Your task to perform on an android device: Go to ESPN.com Image 0: 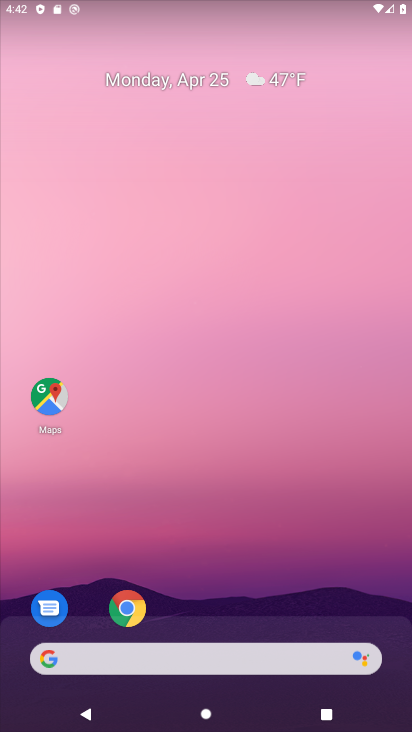
Step 0: click (128, 613)
Your task to perform on an android device: Go to ESPN.com Image 1: 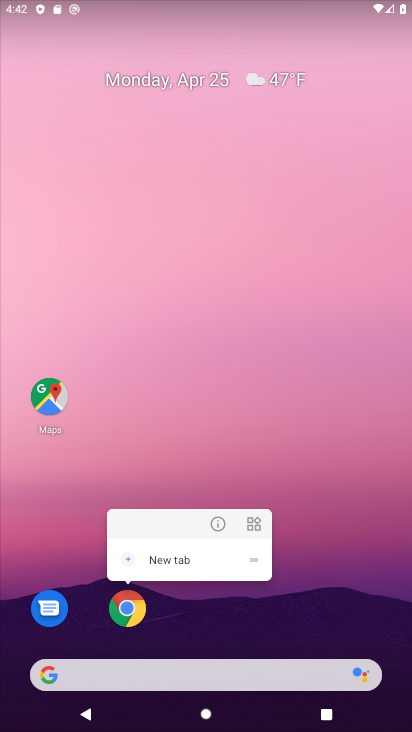
Step 1: click (129, 606)
Your task to perform on an android device: Go to ESPN.com Image 2: 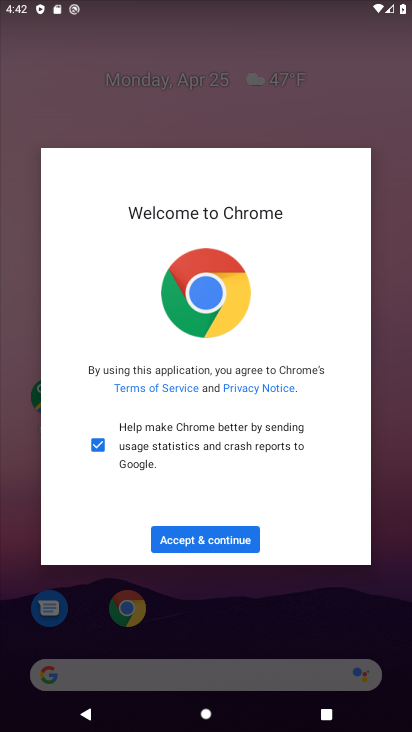
Step 2: click (187, 536)
Your task to perform on an android device: Go to ESPN.com Image 3: 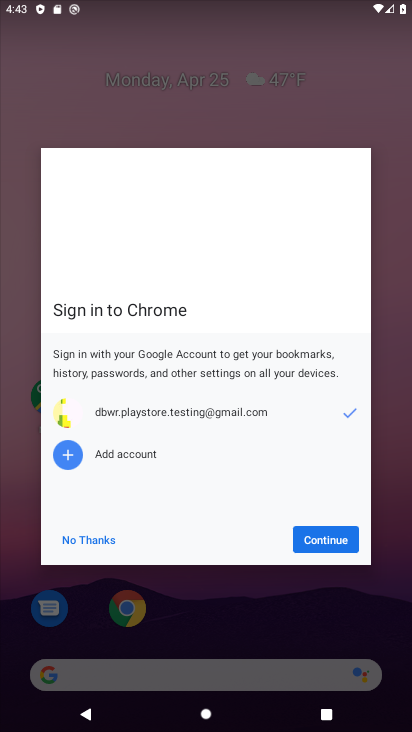
Step 3: click (313, 537)
Your task to perform on an android device: Go to ESPN.com Image 4: 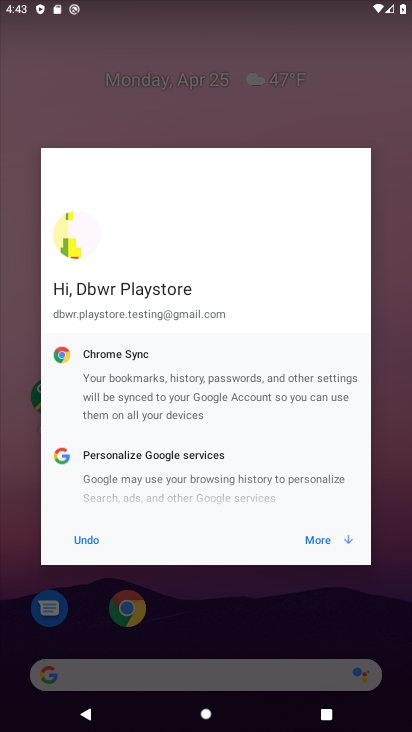
Step 4: click (319, 544)
Your task to perform on an android device: Go to ESPN.com Image 5: 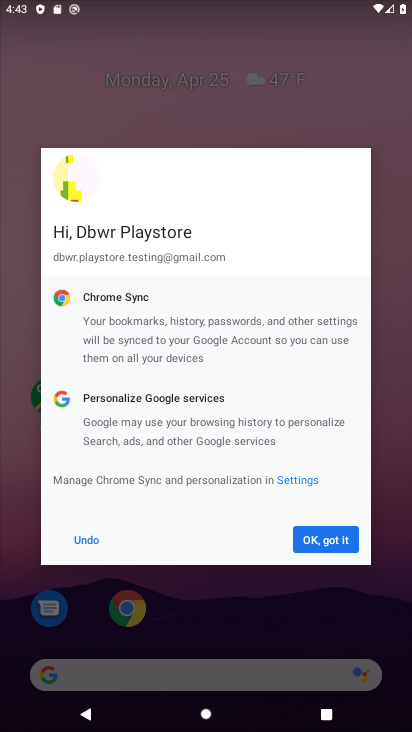
Step 5: click (326, 539)
Your task to perform on an android device: Go to ESPN.com Image 6: 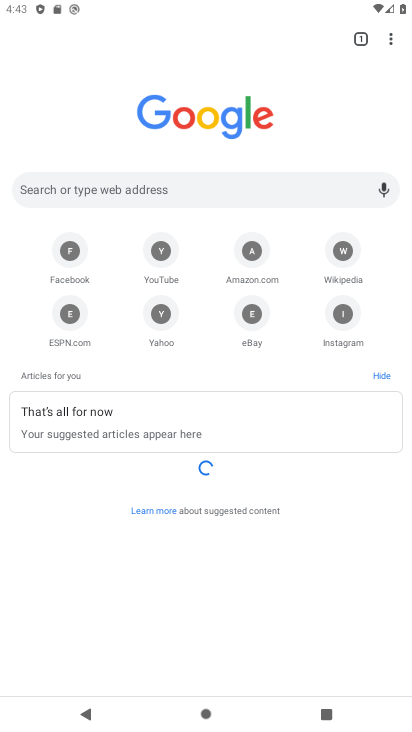
Step 6: click (140, 191)
Your task to perform on an android device: Go to ESPN.com Image 7: 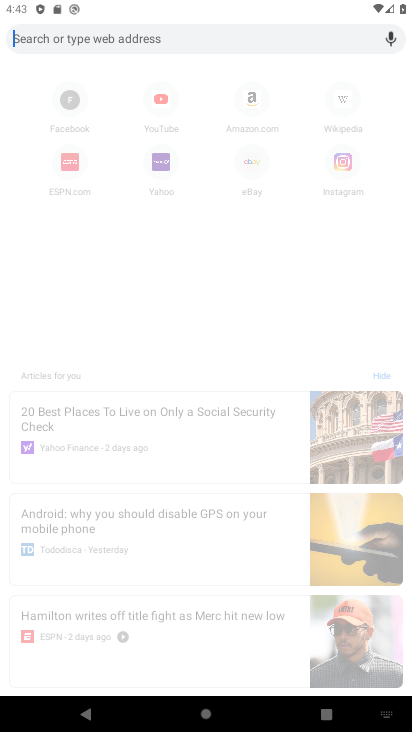
Step 7: type "epsn.com"
Your task to perform on an android device: Go to ESPN.com Image 8: 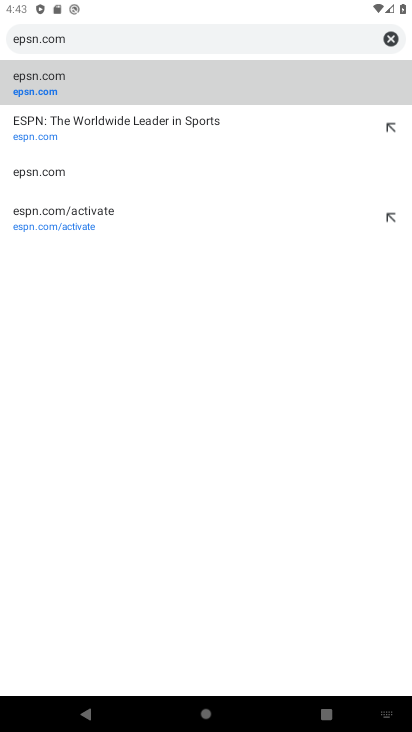
Step 8: click (69, 81)
Your task to perform on an android device: Go to ESPN.com Image 9: 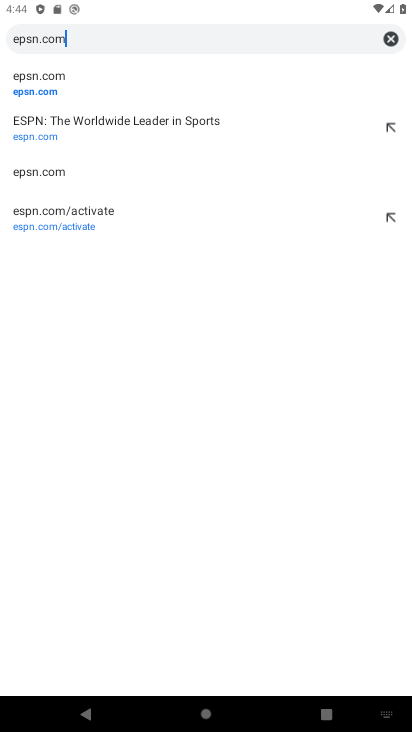
Step 9: click (30, 114)
Your task to perform on an android device: Go to ESPN.com Image 10: 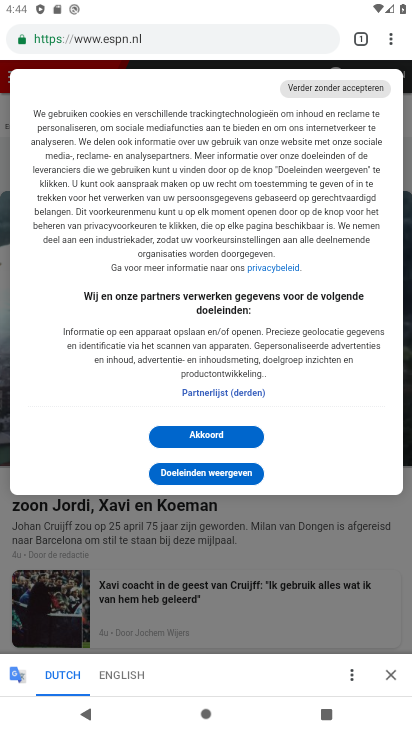
Step 10: task complete